Your task to perform on an android device: Go to Reddit.com Image 0: 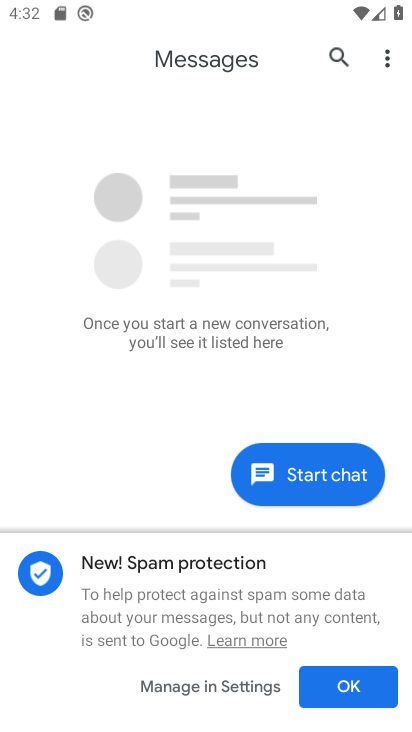
Step 0: press home button
Your task to perform on an android device: Go to Reddit.com Image 1: 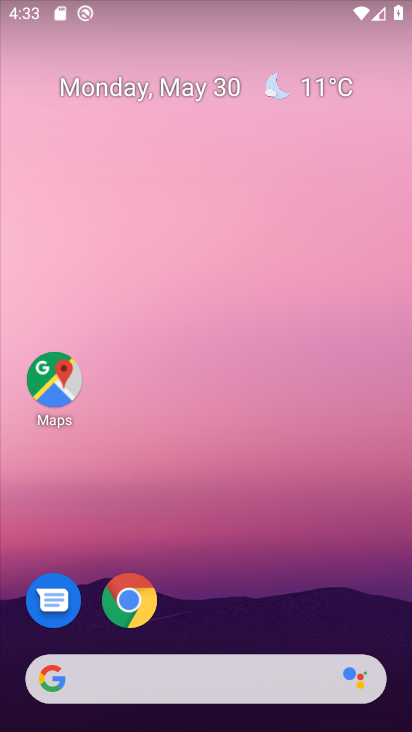
Step 1: drag from (286, 488) to (307, 56)
Your task to perform on an android device: Go to Reddit.com Image 2: 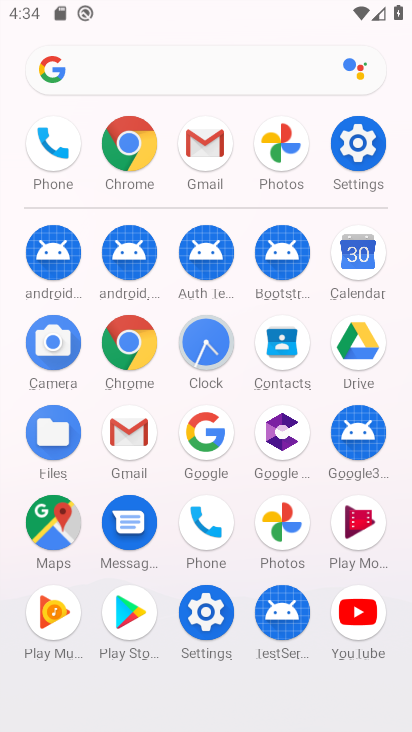
Step 2: click (132, 140)
Your task to perform on an android device: Go to Reddit.com Image 3: 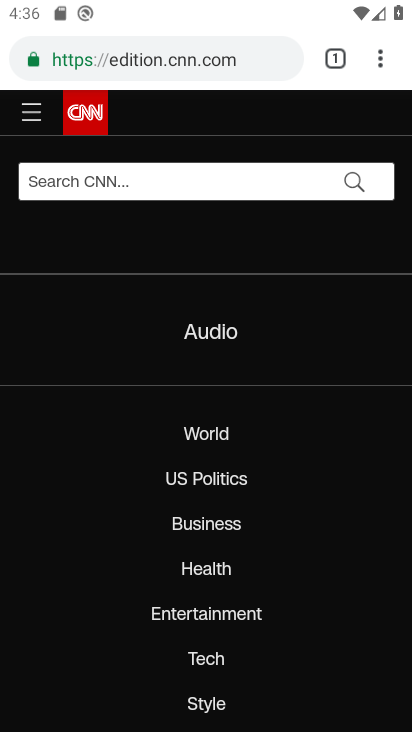
Step 3: click (166, 58)
Your task to perform on an android device: Go to Reddit.com Image 4: 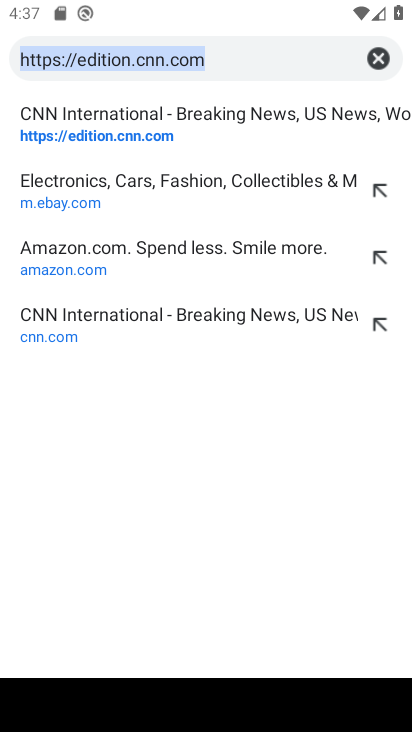
Step 4: click (376, 66)
Your task to perform on an android device: Go to Reddit.com Image 5: 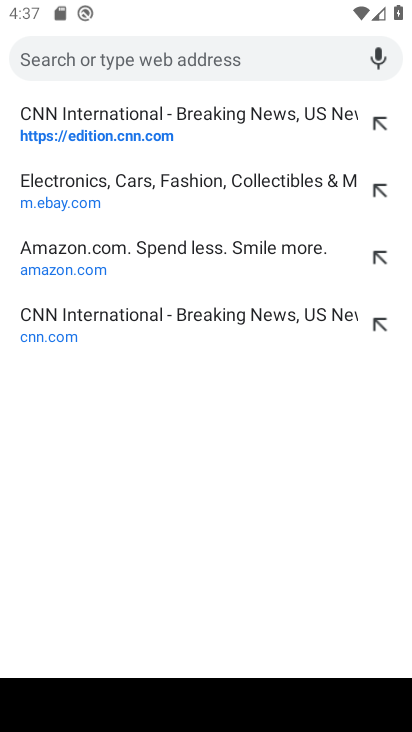
Step 5: type "reddit"
Your task to perform on an android device: Go to Reddit.com Image 6: 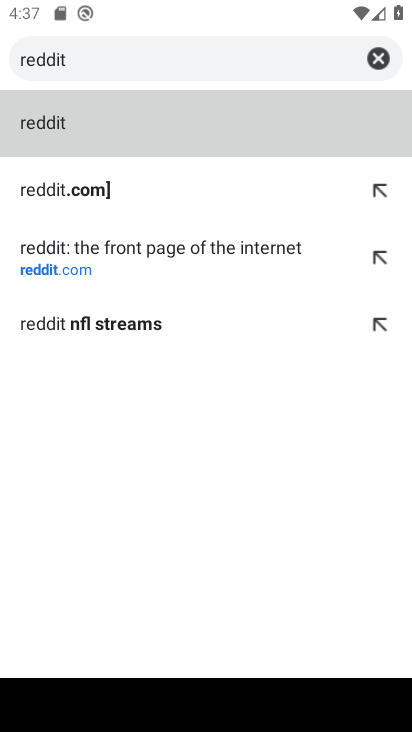
Step 6: click (112, 196)
Your task to perform on an android device: Go to Reddit.com Image 7: 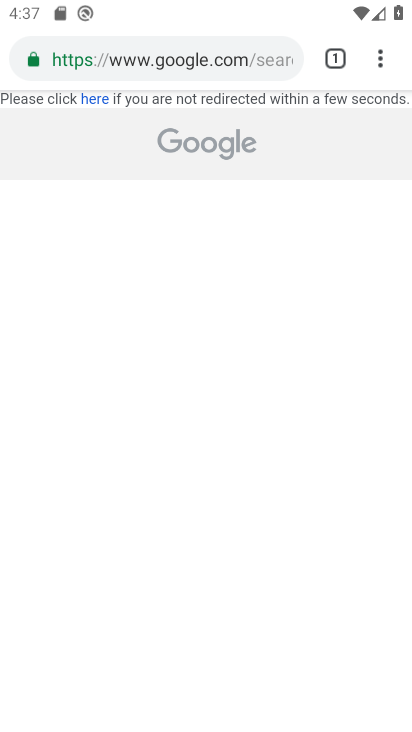
Step 7: task complete